Your task to perform on an android device: open wifi settings Image 0: 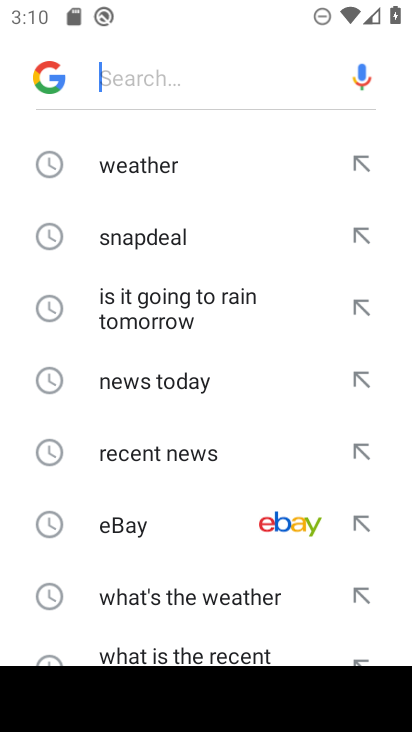
Step 0: press home button
Your task to perform on an android device: open wifi settings Image 1: 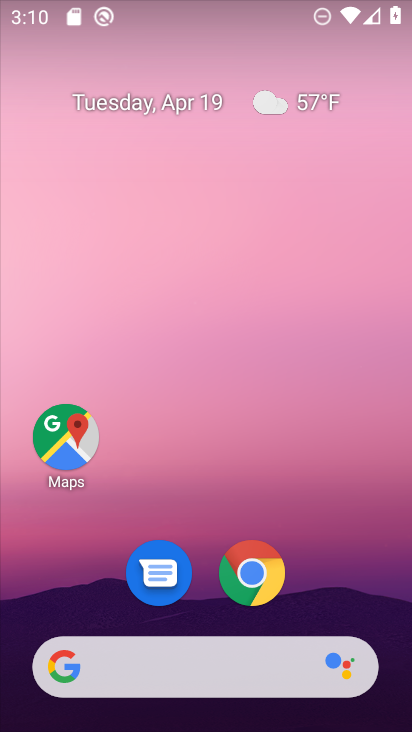
Step 1: drag from (383, 610) to (371, 47)
Your task to perform on an android device: open wifi settings Image 2: 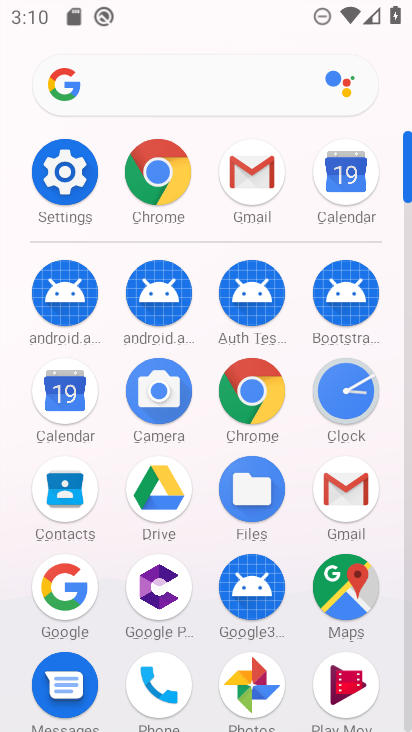
Step 2: click (72, 180)
Your task to perform on an android device: open wifi settings Image 3: 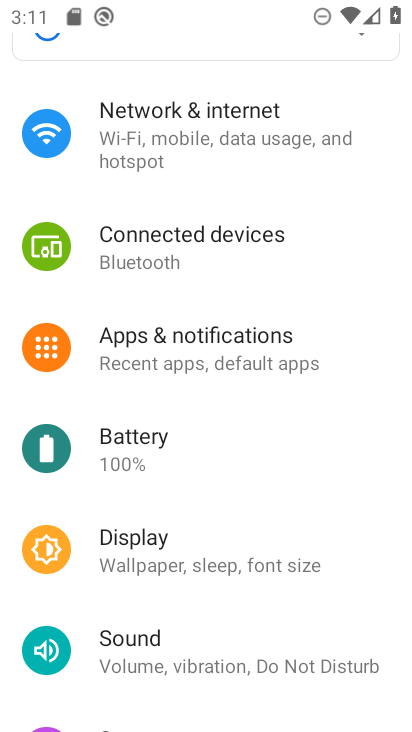
Step 3: click (184, 144)
Your task to perform on an android device: open wifi settings Image 4: 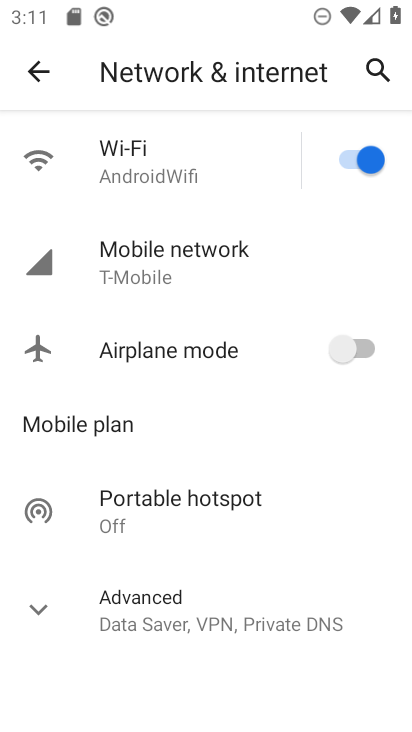
Step 4: click (103, 160)
Your task to perform on an android device: open wifi settings Image 5: 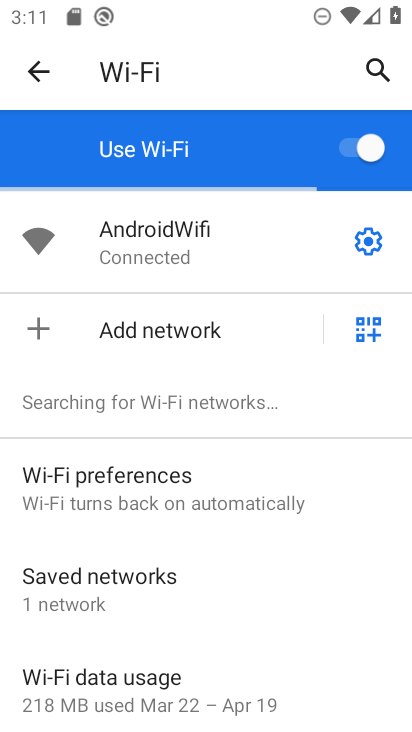
Step 5: task complete